Your task to perform on an android device: Open wifi settings Image 0: 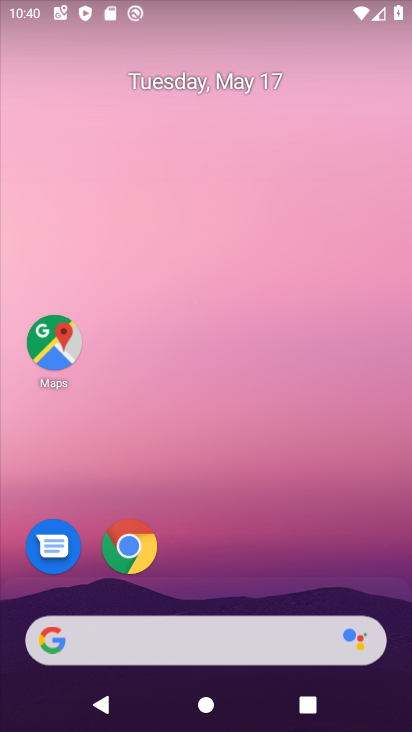
Step 0: drag from (207, 610) to (309, 107)
Your task to perform on an android device: Open wifi settings Image 1: 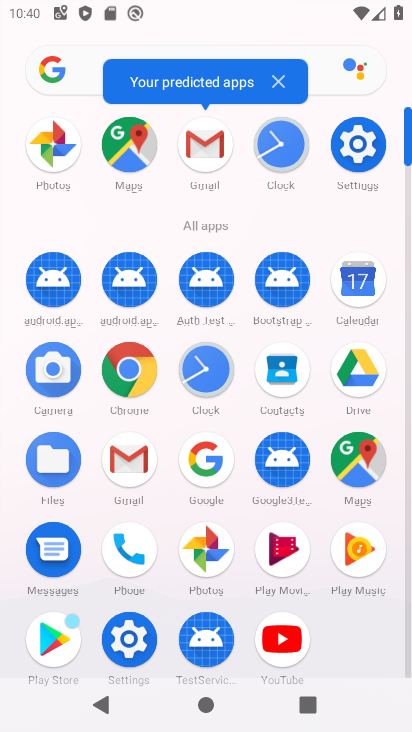
Step 1: click (115, 650)
Your task to perform on an android device: Open wifi settings Image 2: 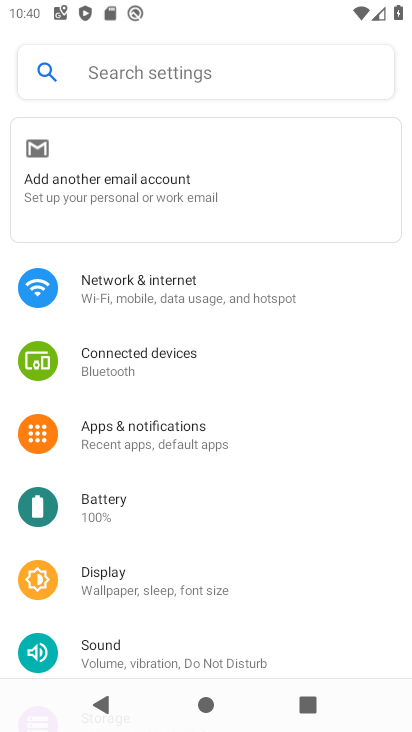
Step 2: click (189, 282)
Your task to perform on an android device: Open wifi settings Image 3: 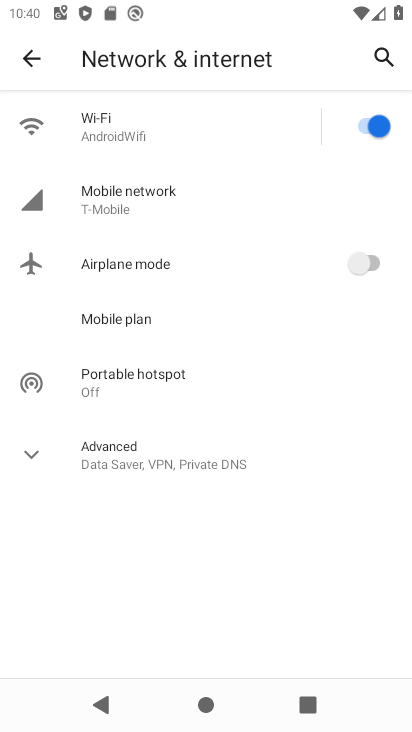
Step 3: click (185, 144)
Your task to perform on an android device: Open wifi settings Image 4: 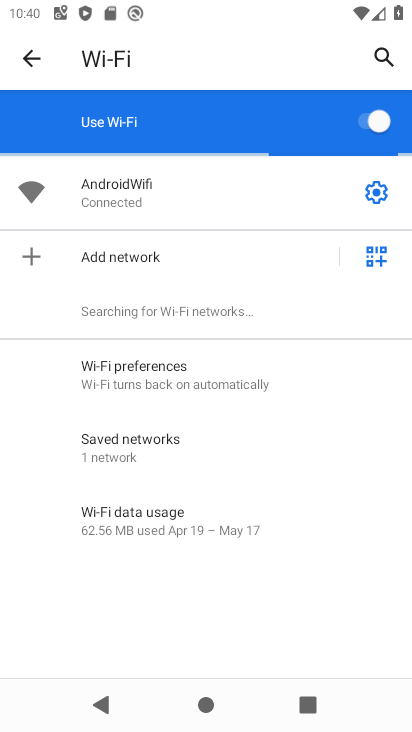
Step 4: task complete